Your task to perform on an android device: turn notification dots on Image 0: 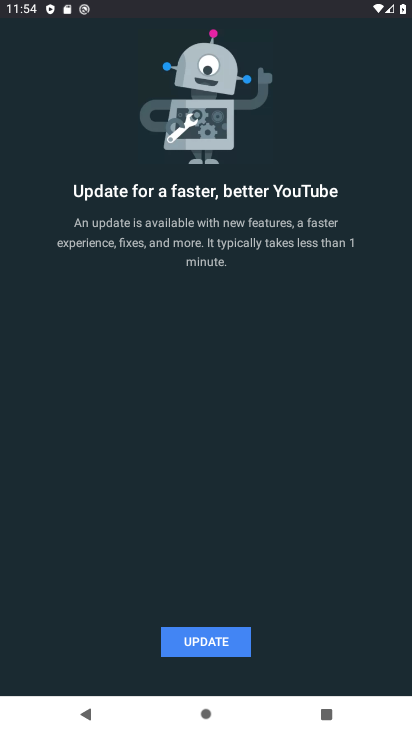
Step 0: press home button
Your task to perform on an android device: turn notification dots on Image 1: 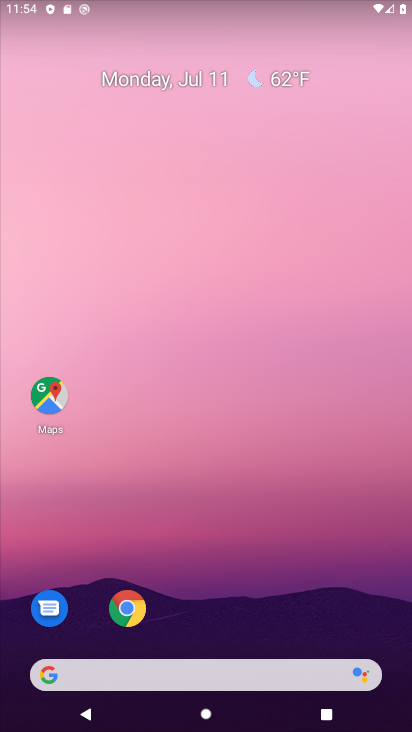
Step 1: drag from (236, 487) to (218, 13)
Your task to perform on an android device: turn notification dots on Image 2: 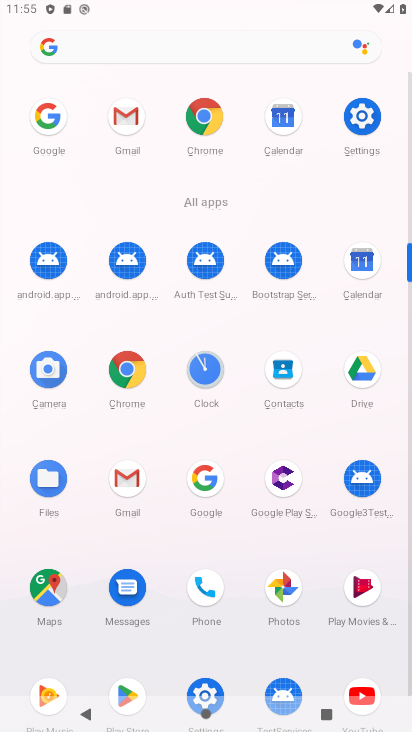
Step 2: click (353, 147)
Your task to perform on an android device: turn notification dots on Image 3: 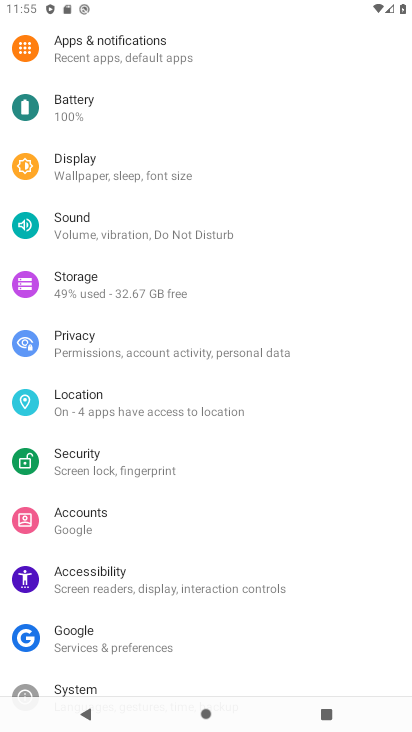
Step 3: click (138, 48)
Your task to perform on an android device: turn notification dots on Image 4: 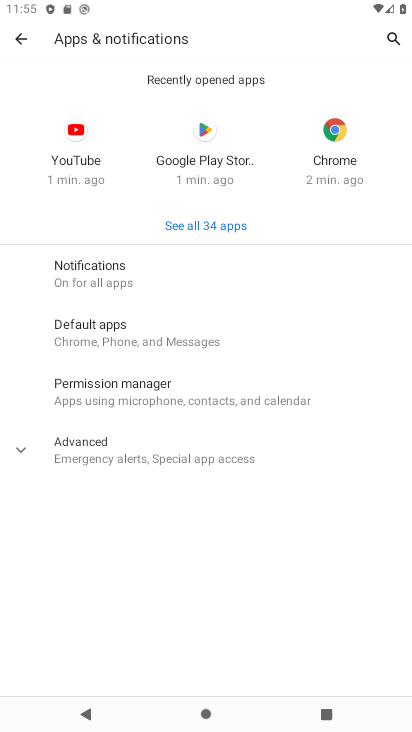
Step 4: click (80, 271)
Your task to perform on an android device: turn notification dots on Image 5: 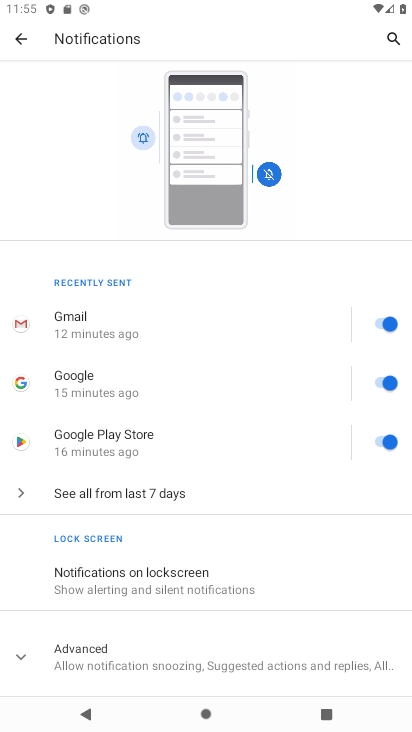
Step 5: drag from (186, 585) to (236, 230)
Your task to perform on an android device: turn notification dots on Image 6: 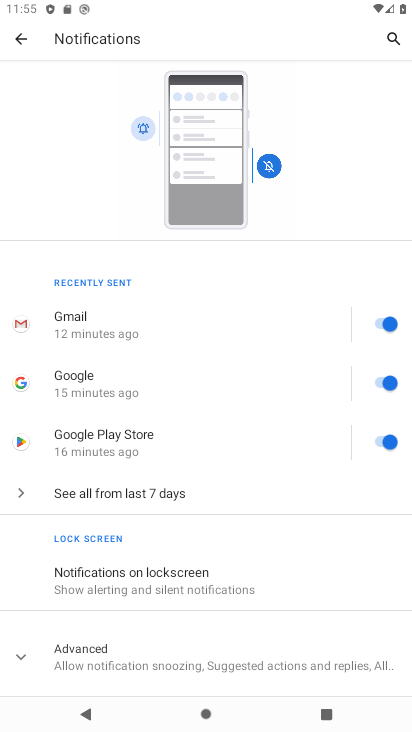
Step 6: click (122, 652)
Your task to perform on an android device: turn notification dots on Image 7: 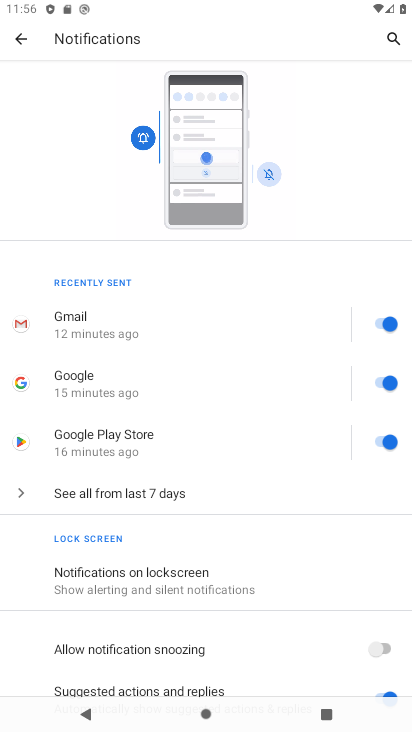
Step 7: drag from (131, 567) to (157, 238)
Your task to perform on an android device: turn notification dots on Image 8: 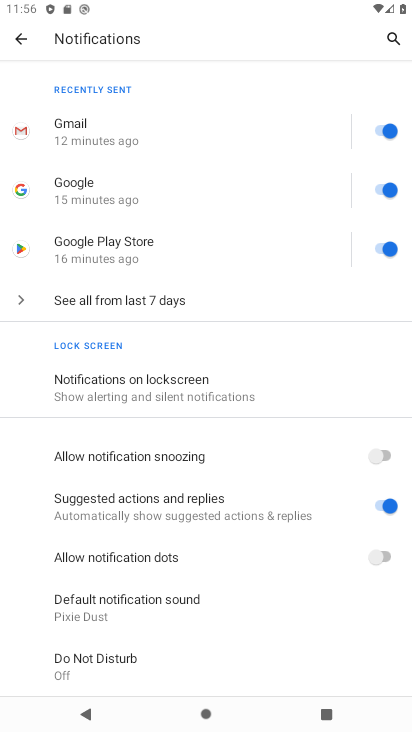
Step 8: drag from (159, 359) to (171, 632)
Your task to perform on an android device: turn notification dots on Image 9: 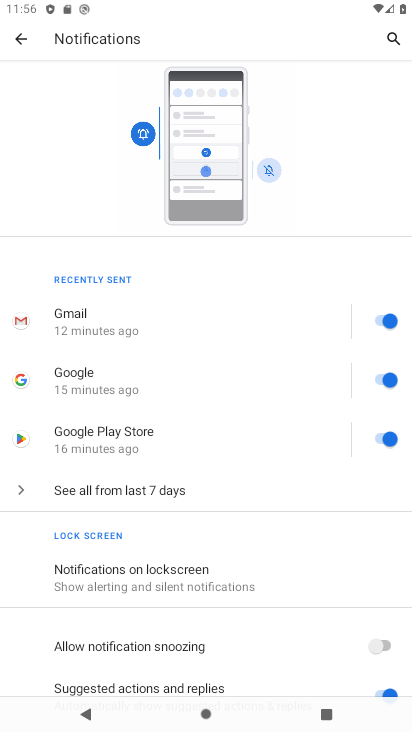
Step 9: drag from (208, 655) to (278, 149)
Your task to perform on an android device: turn notification dots on Image 10: 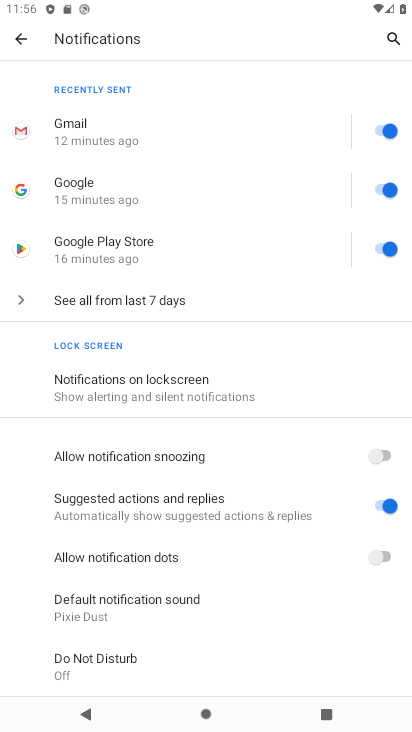
Step 10: drag from (189, 626) to (288, 132)
Your task to perform on an android device: turn notification dots on Image 11: 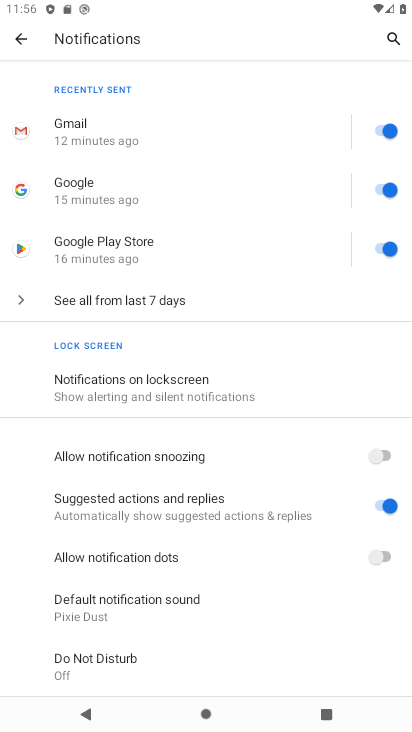
Step 11: click (152, 564)
Your task to perform on an android device: turn notification dots on Image 12: 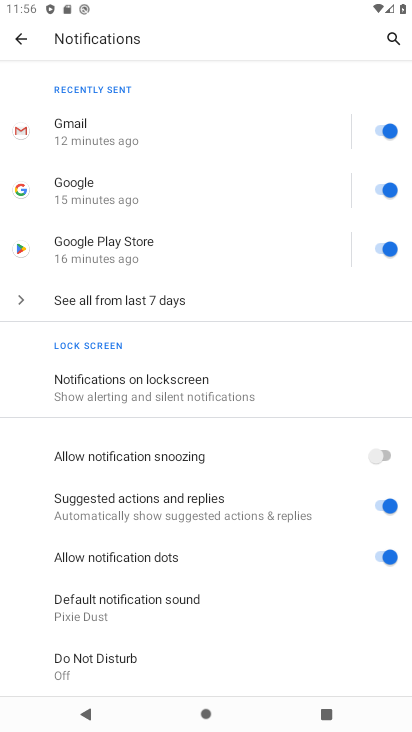
Step 12: task complete